Your task to perform on an android device: open sync settings in chrome Image 0: 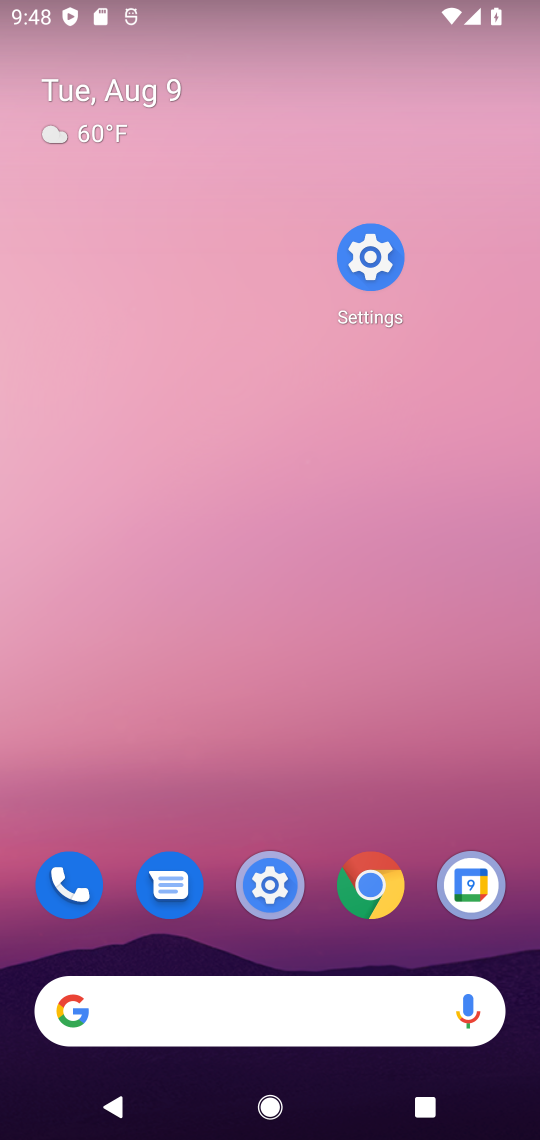
Step 0: press home button
Your task to perform on an android device: open sync settings in chrome Image 1: 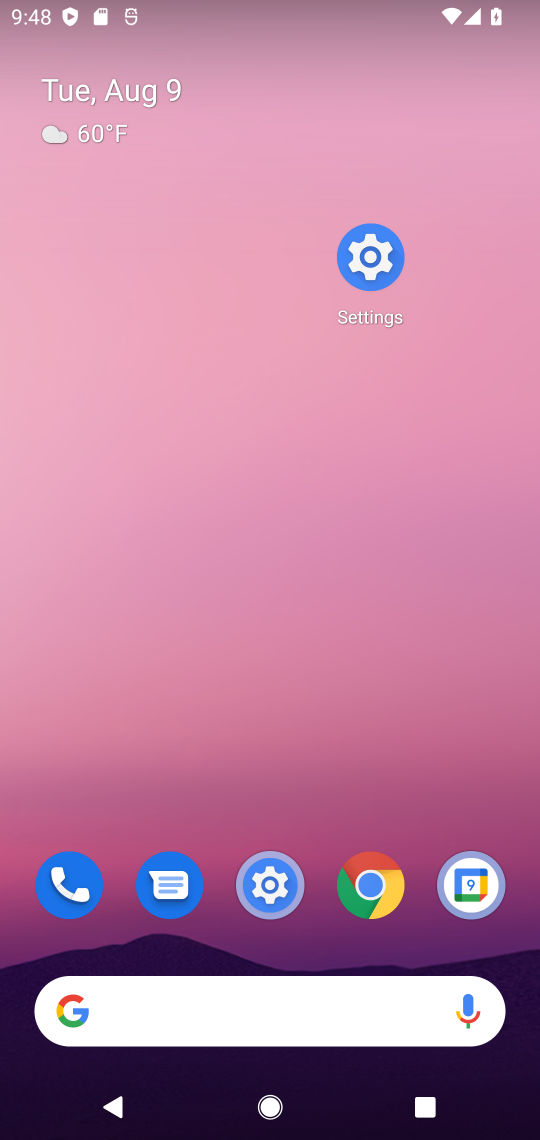
Step 1: drag from (322, 849) to (347, 46)
Your task to perform on an android device: open sync settings in chrome Image 2: 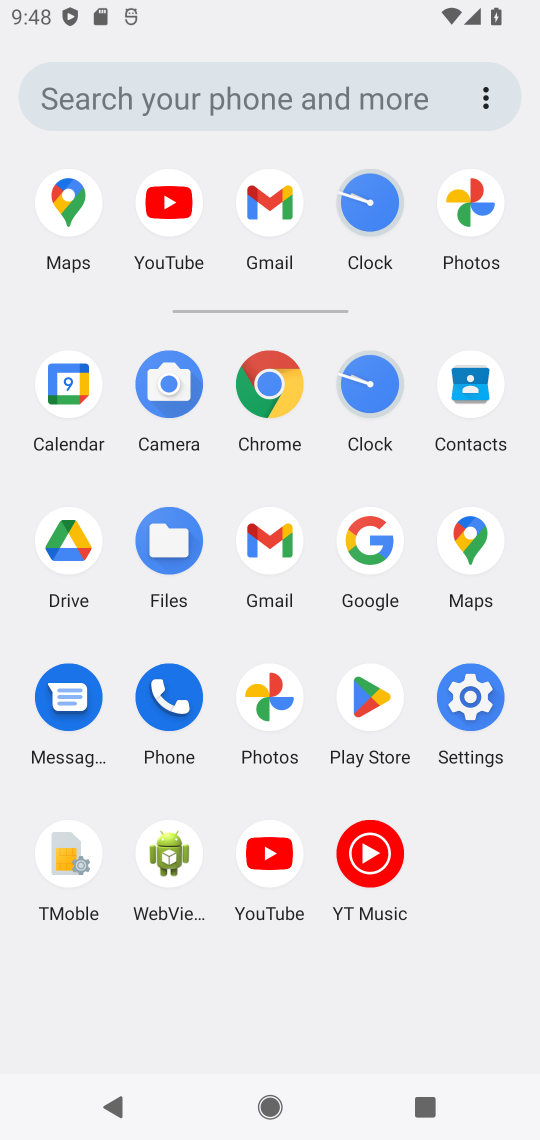
Step 2: click (266, 373)
Your task to perform on an android device: open sync settings in chrome Image 3: 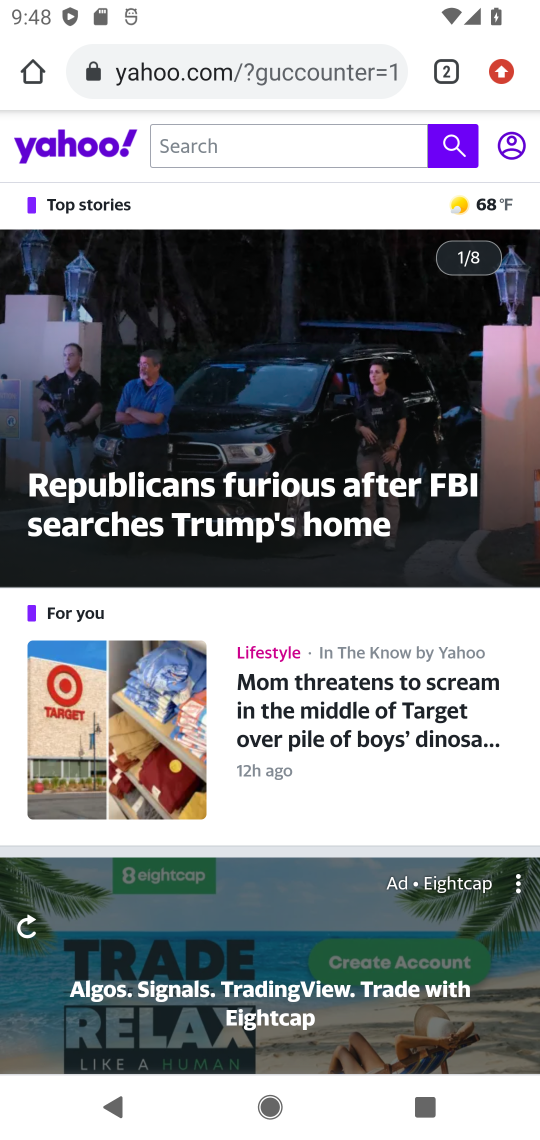
Step 3: click (499, 68)
Your task to perform on an android device: open sync settings in chrome Image 4: 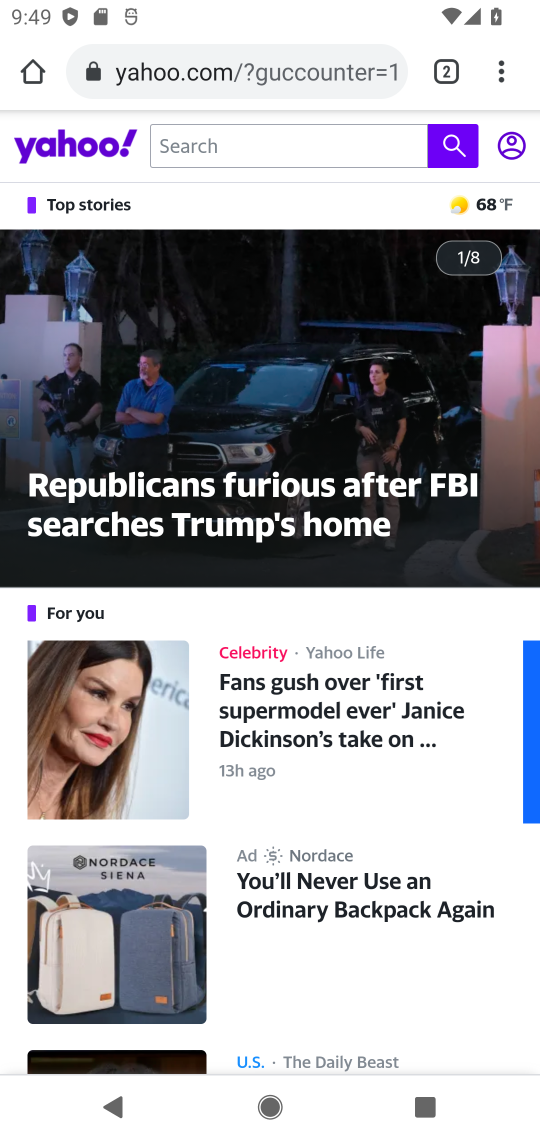
Step 4: click (507, 69)
Your task to perform on an android device: open sync settings in chrome Image 5: 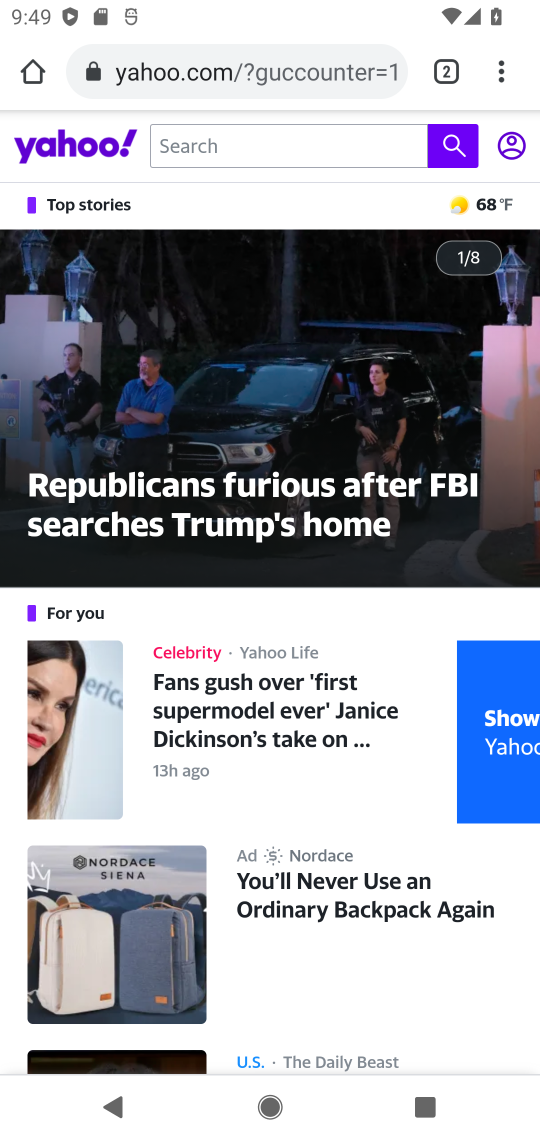
Step 5: click (503, 65)
Your task to perform on an android device: open sync settings in chrome Image 6: 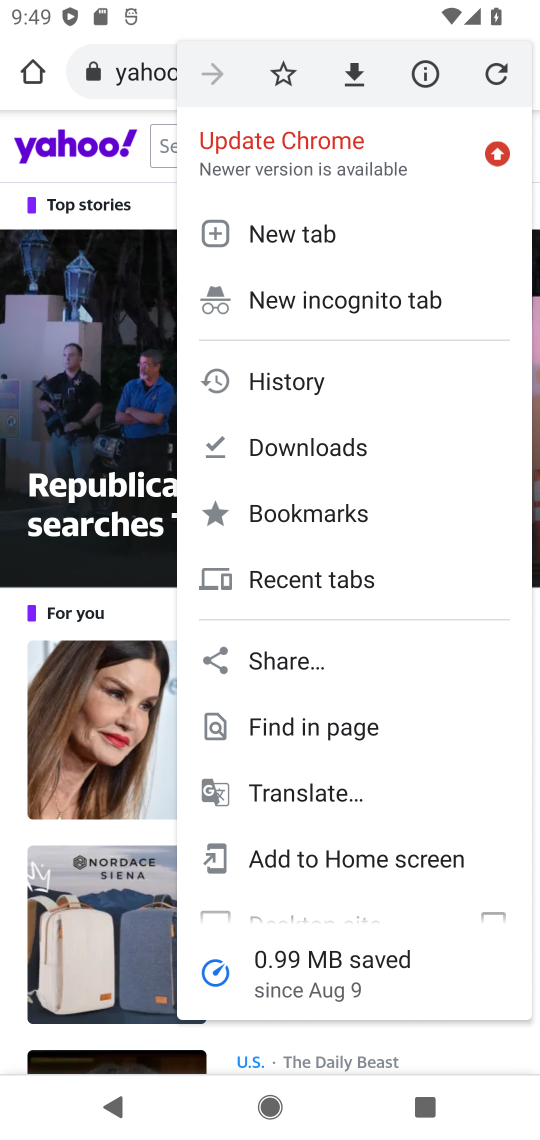
Step 6: drag from (282, 824) to (346, 269)
Your task to perform on an android device: open sync settings in chrome Image 7: 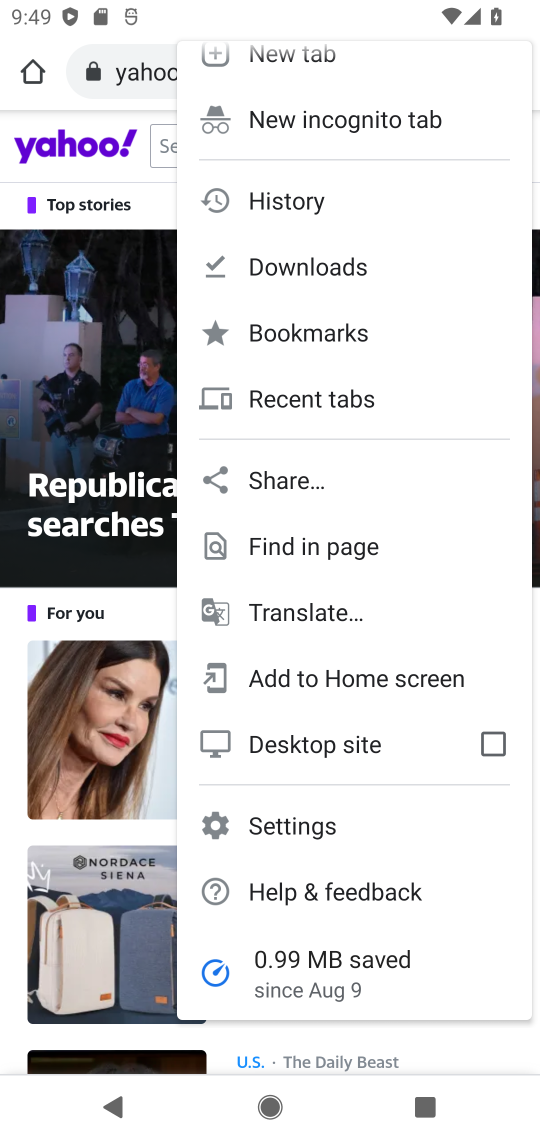
Step 7: click (359, 821)
Your task to perform on an android device: open sync settings in chrome Image 8: 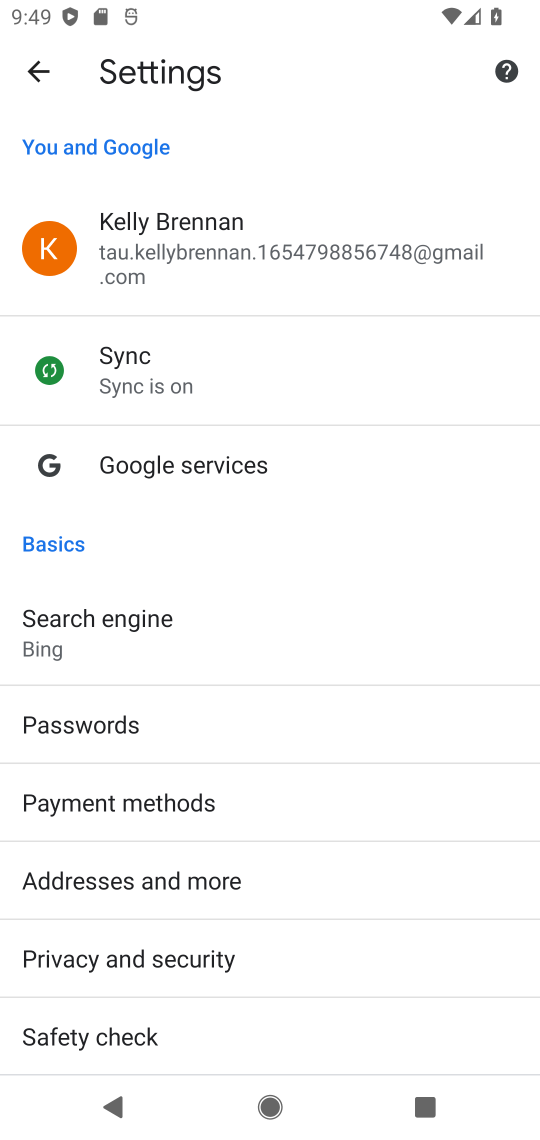
Step 8: drag from (264, 1018) to (346, 228)
Your task to perform on an android device: open sync settings in chrome Image 9: 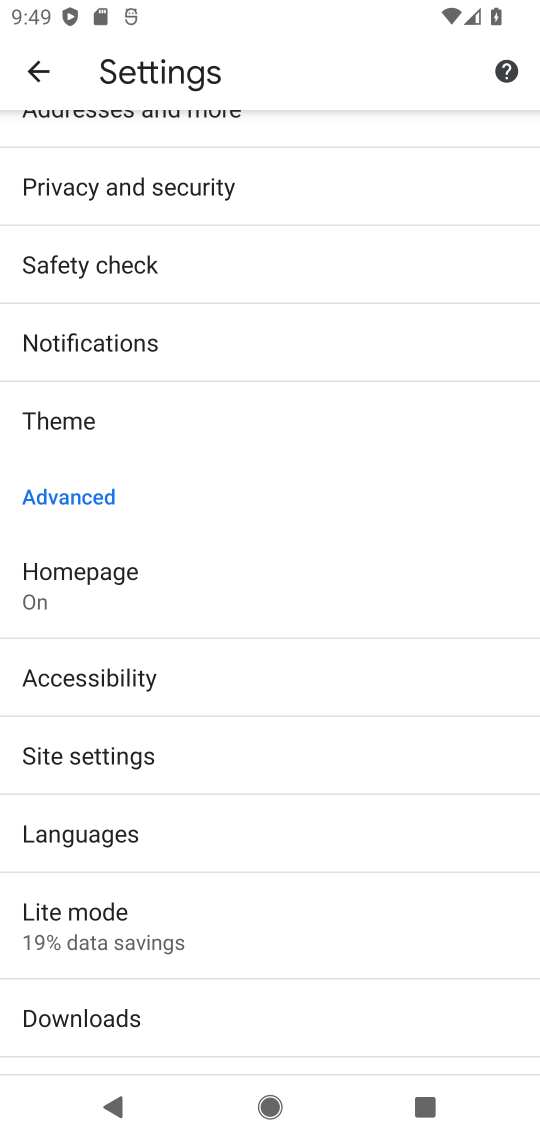
Step 9: drag from (281, 210) to (294, 991)
Your task to perform on an android device: open sync settings in chrome Image 10: 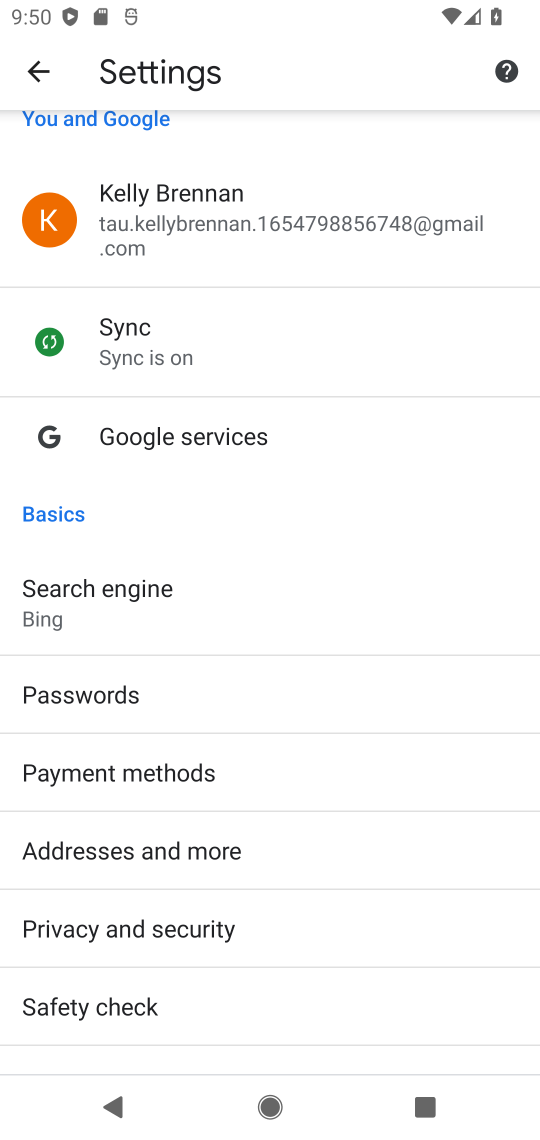
Step 10: click (211, 322)
Your task to perform on an android device: open sync settings in chrome Image 11: 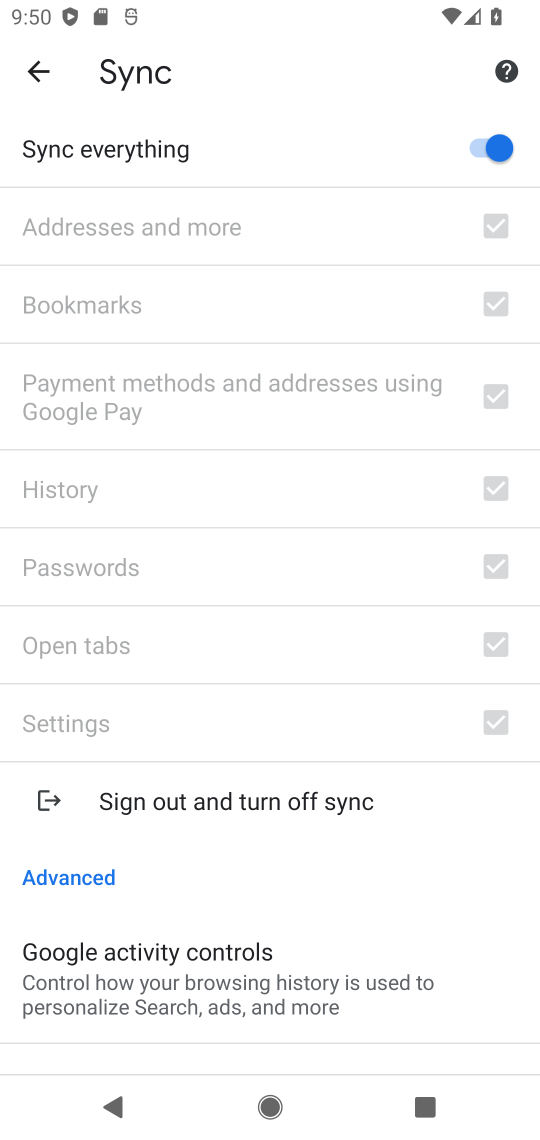
Step 11: task complete